Your task to perform on an android device: open chrome privacy settings Image 0: 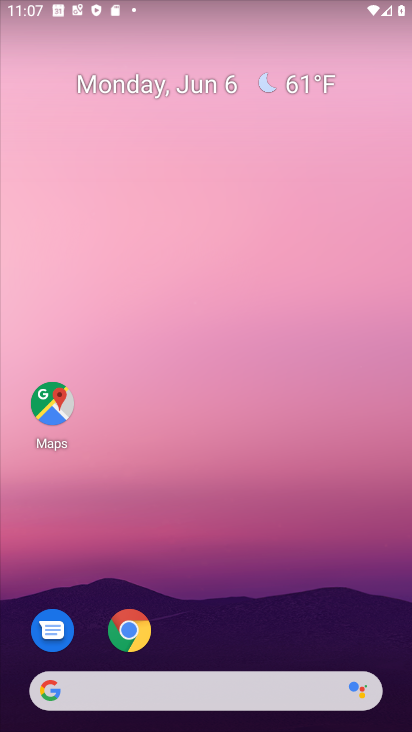
Step 0: click (245, 96)
Your task to perform on an android device: open chrome privacy settings Image 1: 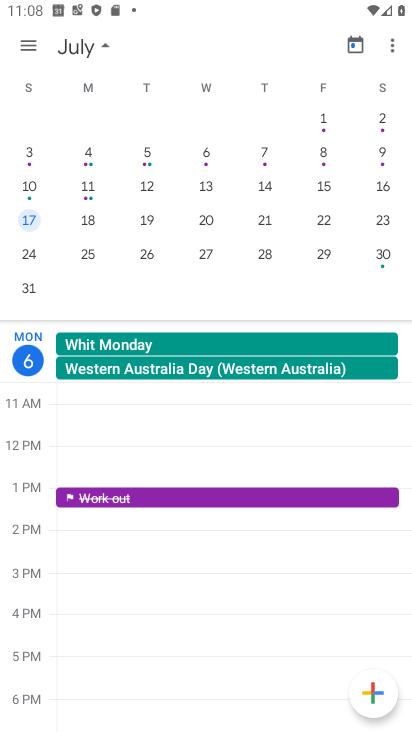
Step 1: press home button
Your task to perform on an android device: open chrome privacy settings Image 2: 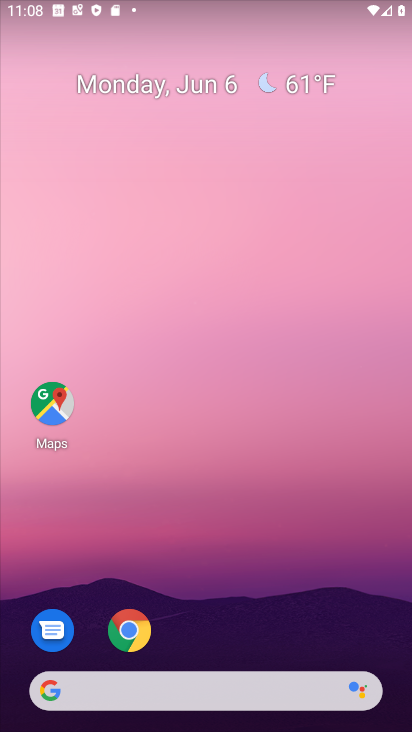
Step 2: drag from (259, 487) to (241, 132)
Your task to perform on an android device: open chrome privacy settings Image 3: 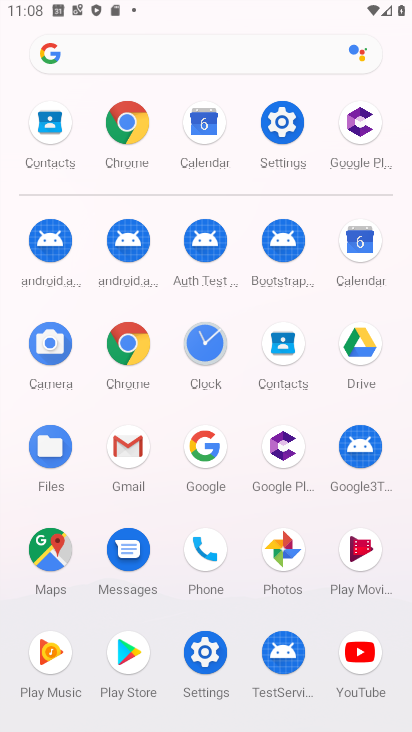
Step 3: click (144, 344)
Your task to perform on an android device: open chrome privacy settings Image 4: 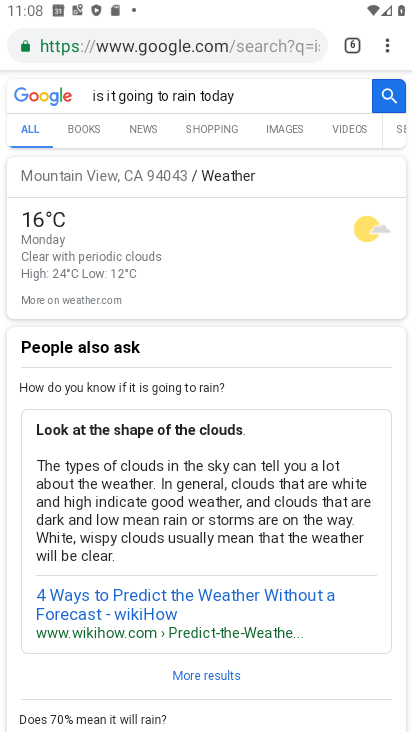
Step 4: drag from (386, 38) to (230, 509)
Your task to perform on an android device: open chrome privacy settings Image 5: 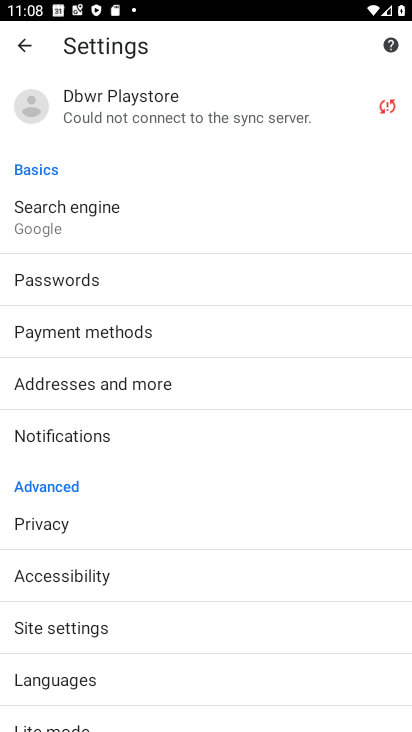
Step 5: click (68, 513)
Your task to perform on an android device: open chrome privacy settings Image 6: 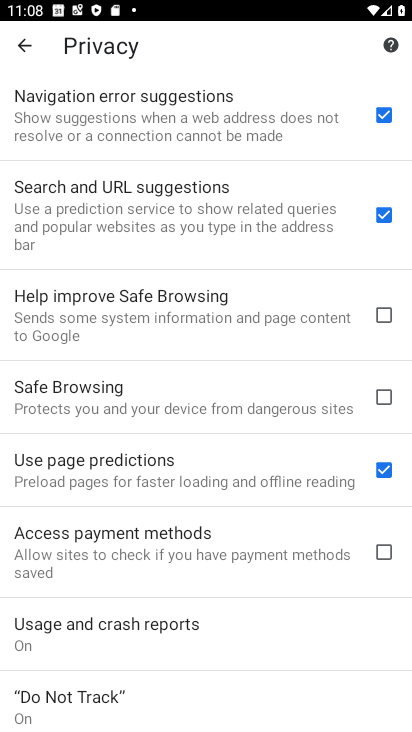
Step 6: task complete